Your task to perform on an android device: Open eBay Image 0: 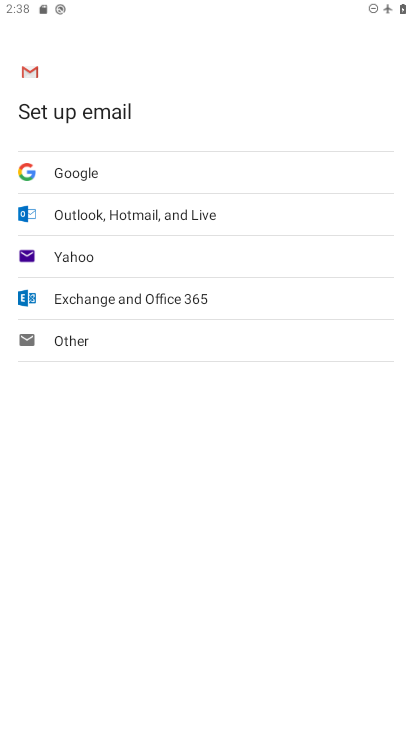
Step 0: drag from (198, 639) to (198, 242)
Your task to perform on an android device: Open eBay Image 1: 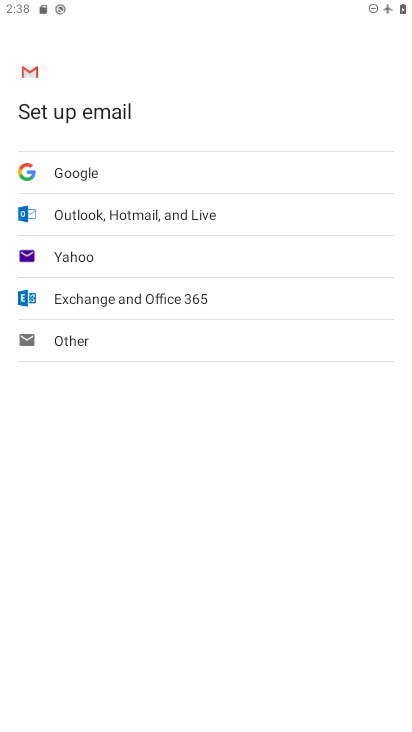
Step 1: press home button
Your task to perform on an android device: Open eBay Image 2: 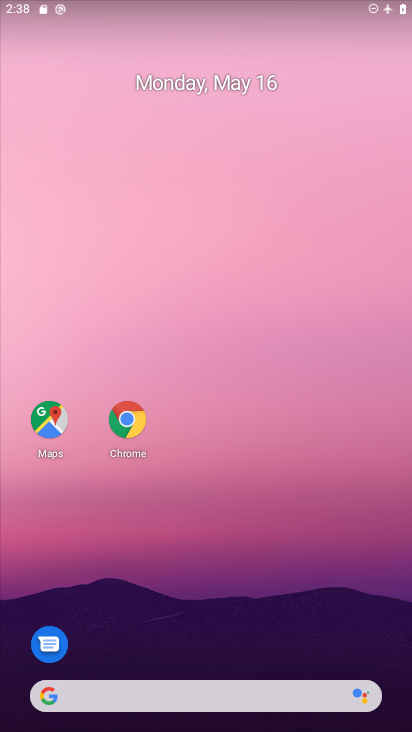
Step 2: drag from (180, 651) to (164, 181)
Your task to perform on an android device: Open eBay Image 3: 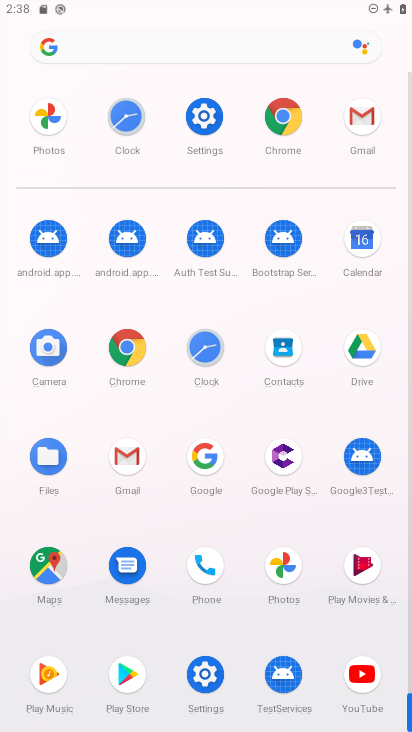
Step 3: click (177, 41)
Your task to perform on an android device: Open eBay Image 4: 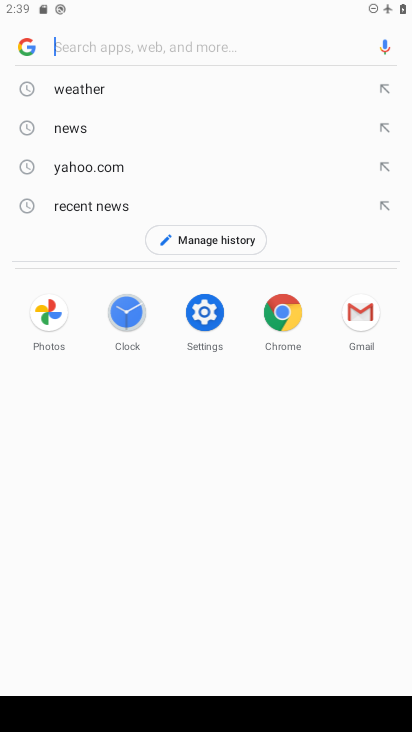
Step 4: type "ebay"
Your task to perform on an android device: Open eBay Image 5: 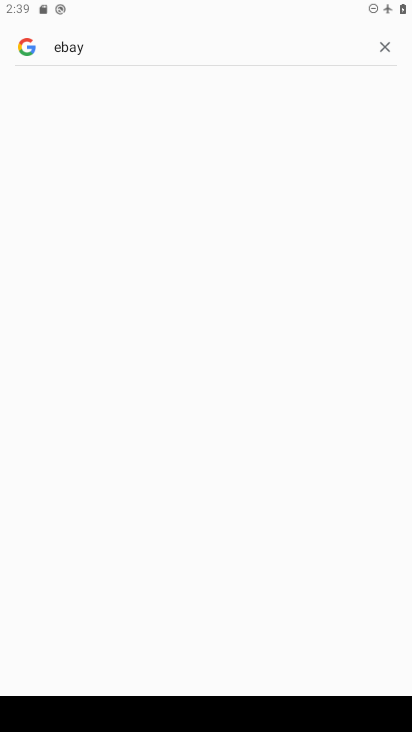
Step 5: click (226, 222)
Your task to perform on an android device: Open eBay Image 6: 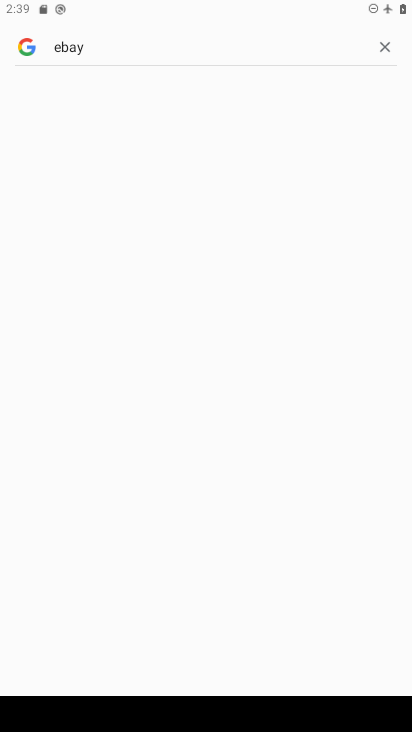
Step 6: task complete